Your task to perform on an android device: Go to Amazon Image 0: 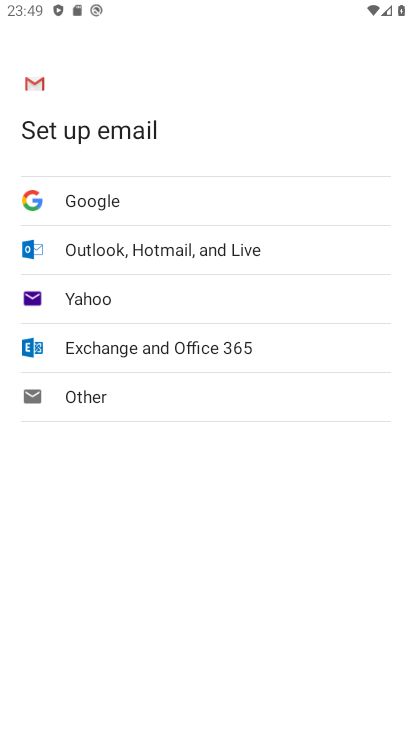
Step 0: press home button
Your task to perform on an android device: Go to Amazon Image 1: 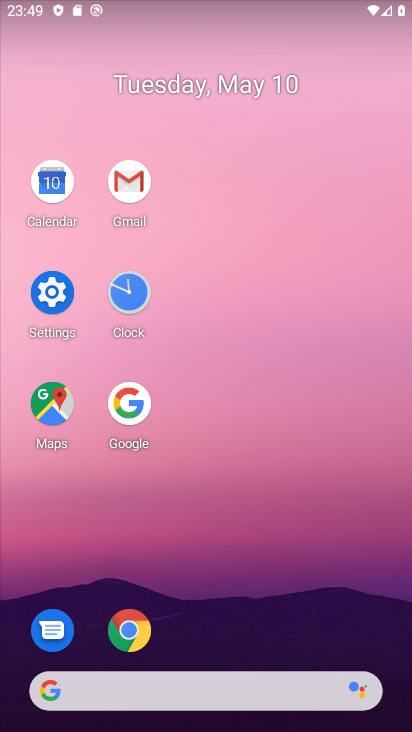
Step 1: click (122, 622)
Your task to perform on an android device: Go to Amazon Image 2: 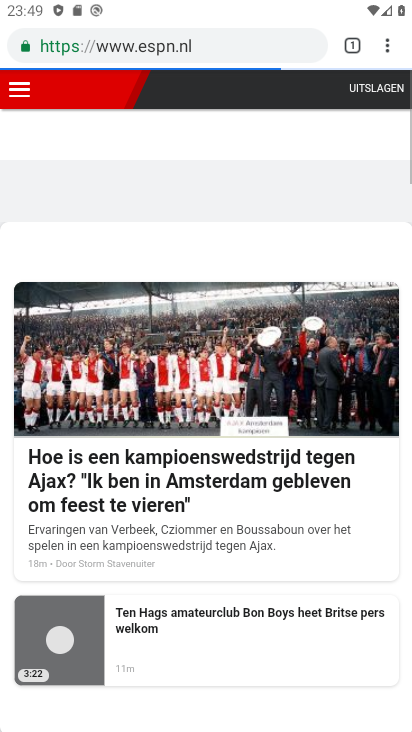
Step 2: click (354, 43)
Your task to perform on an android device: Go to Amazon Image 3: 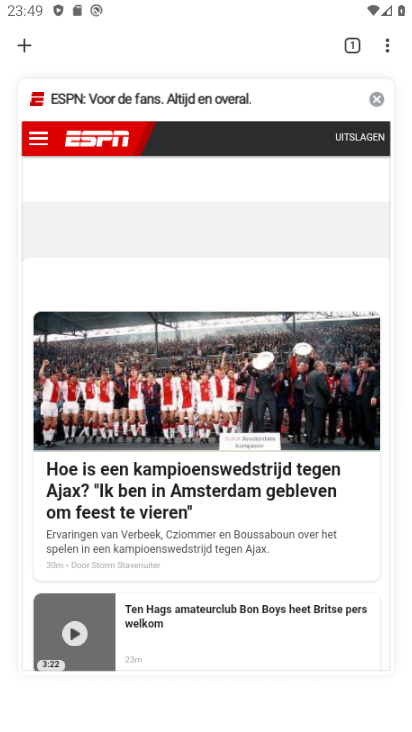
Step 3: click (31, 53)
Your task to perform on an android device: Go to Amazon Image 4: 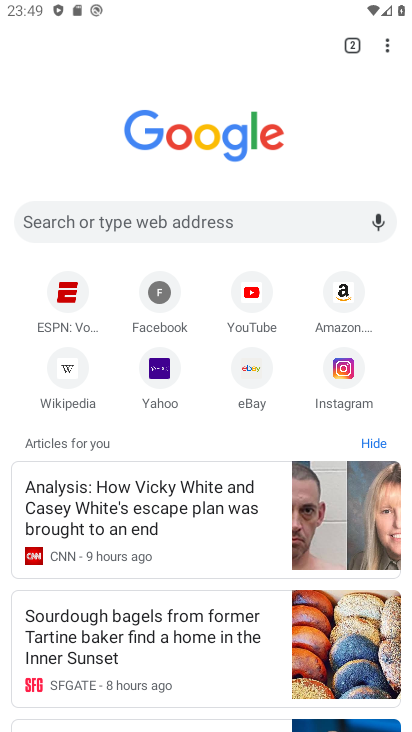
Step 4: click (350, 284)
Your task to perform on an android device: Go to Amazon Image 5: 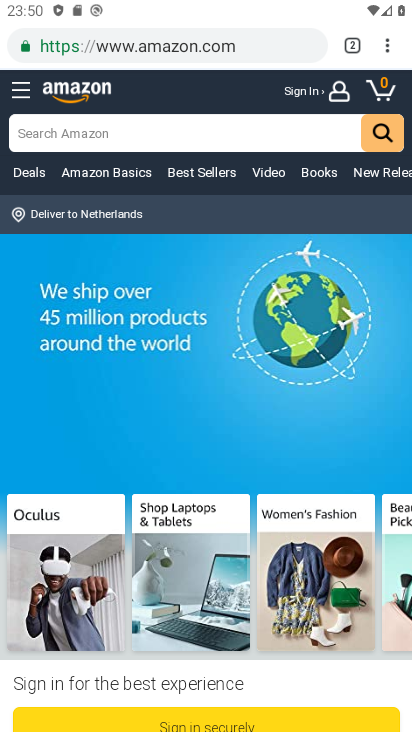
Step 5: task complete